Your task to perform on an android device: Go to Yahoo.com Image 0: 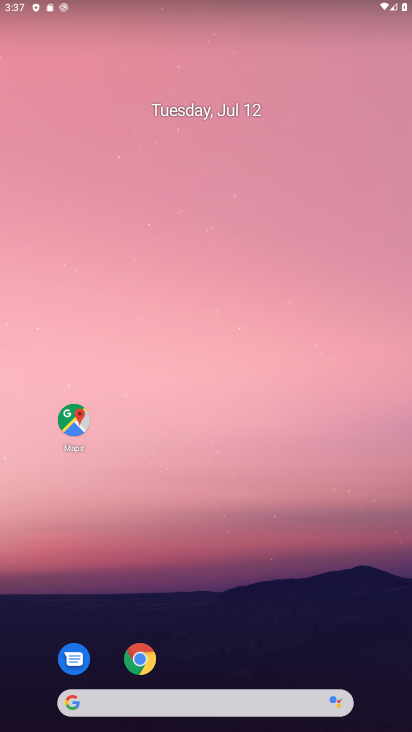
Step 0: drag from (167, 658) to (297, 173)
Your task to perform on an android device: Go to Yahoo.com Image 1: 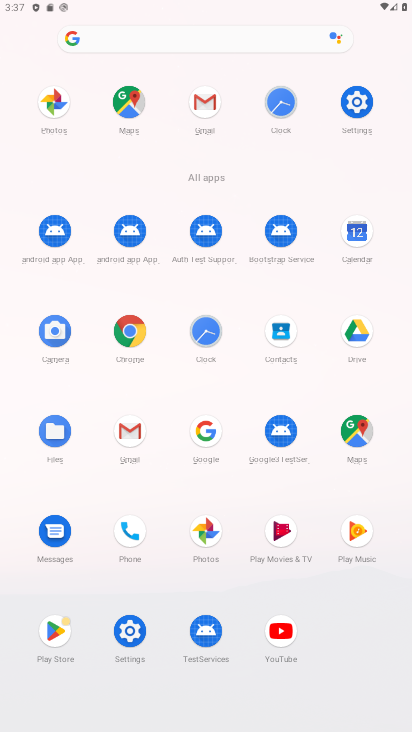
Step 1: click (139, 345)
Your task to perform on an android device: Go to Yahoo.com Image 2: 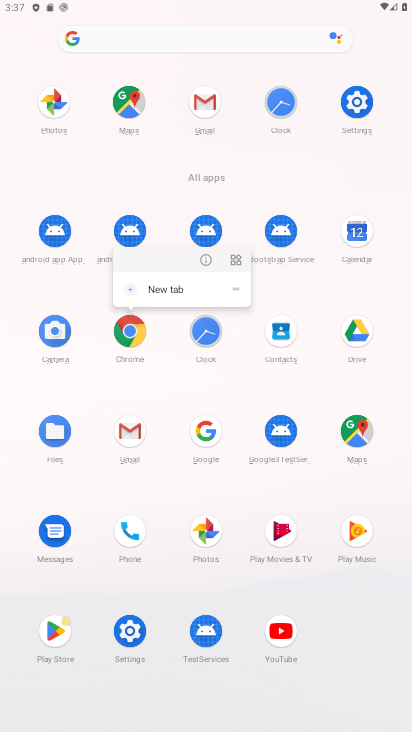
Step 2: click (139, 344)
Your task to perform on an android device: Go to Yahoo.com Image 3: 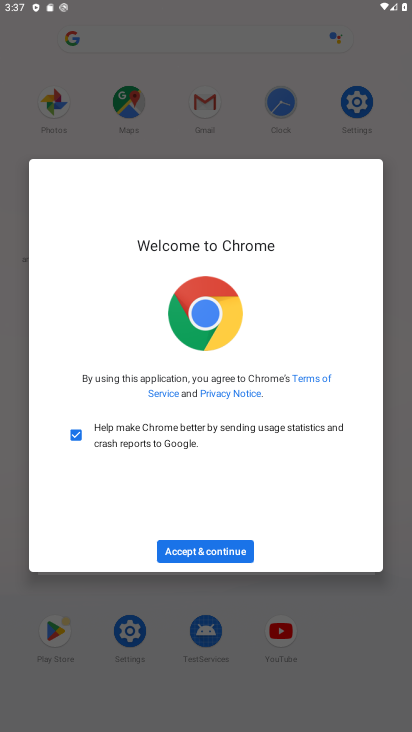
Step 3: click (212, 548)
Your task to perform on an android device: Go to Yahoo.com Image 4: 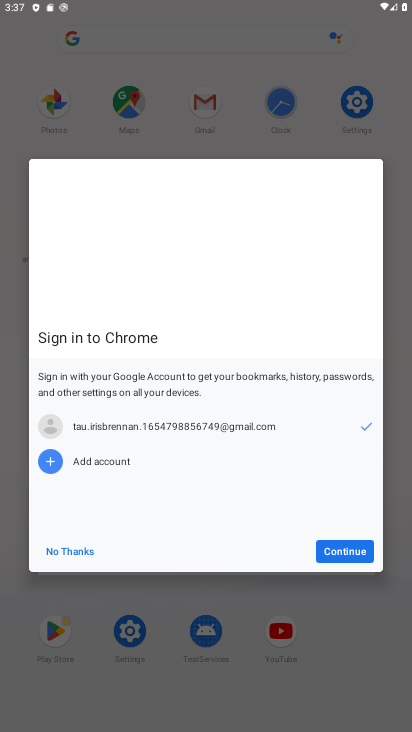
Step 4: click (347, 556)
Your task to perform on an android device: Go to Yahoo.com Image 5: 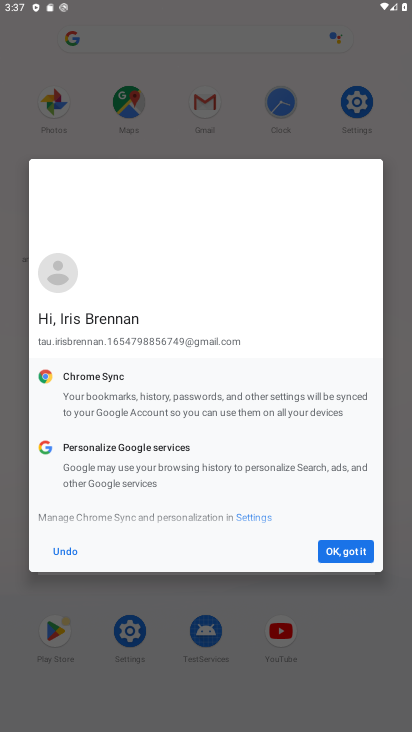
Step 5: click (347, 556)
Your task to perform on an android device: Go to Yahoo.com Image 6: 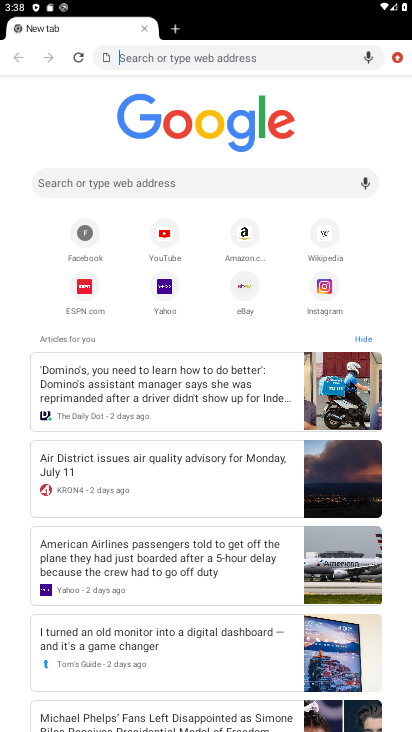
Step 6: click (153, 293)
Your task to perform on an android device: Go to Yahoo.com Image 7: 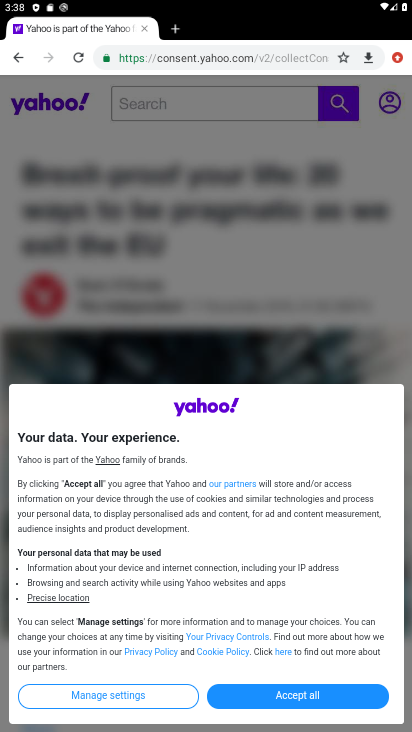
Step 7: click (292, 694)
Your task to perform on an android device: Go to Yahoo.com Image 8: 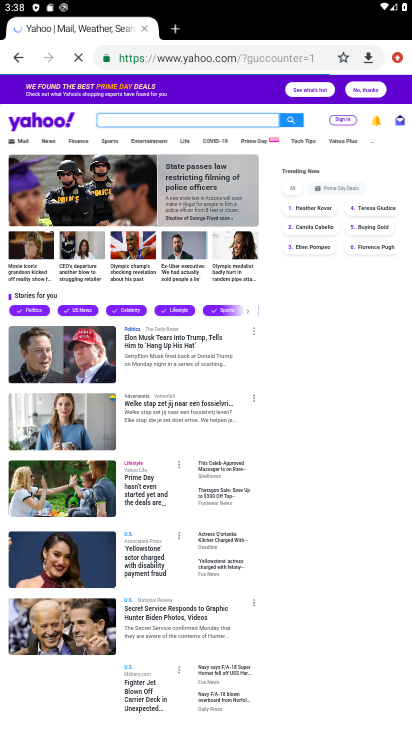
Step 8: task complete